Your task to perform on an android device: visit the assistant section in the google photos Image 0: 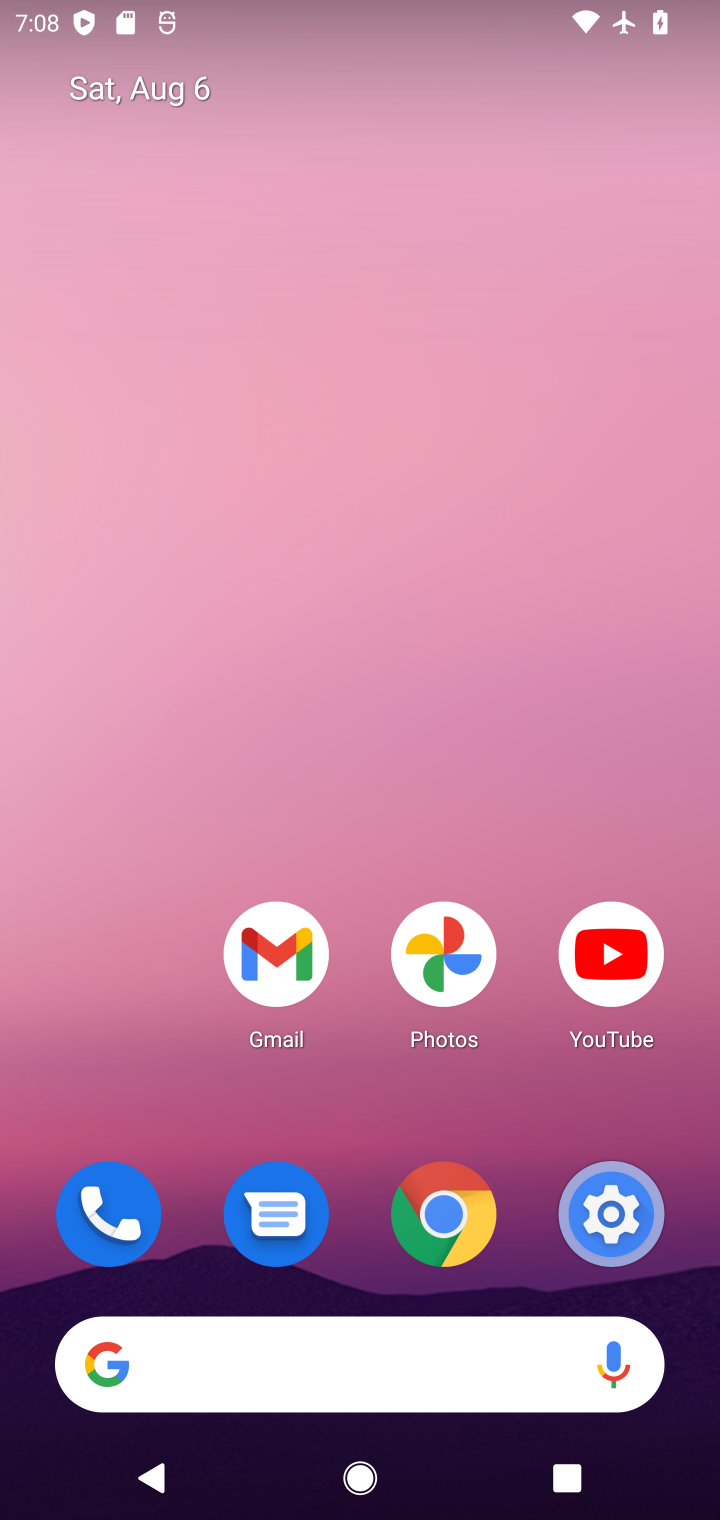
Step 0: click (467, 953)
Your task to perform on an android device: visit the assistant section in the google photos Image 1: 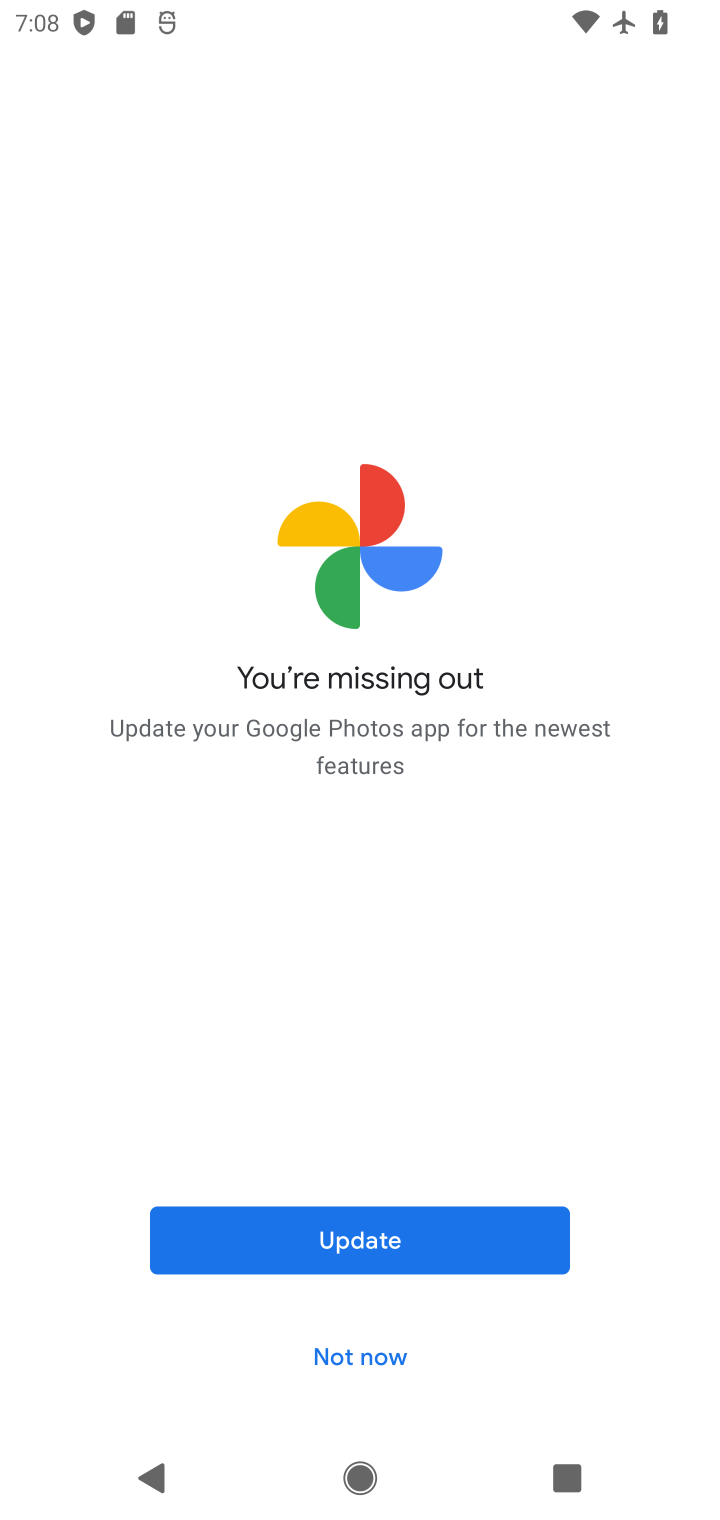
Step 1: click (341, 1351)
Your task to perform on an android device: visit the assistant section in the google photos Image 2: 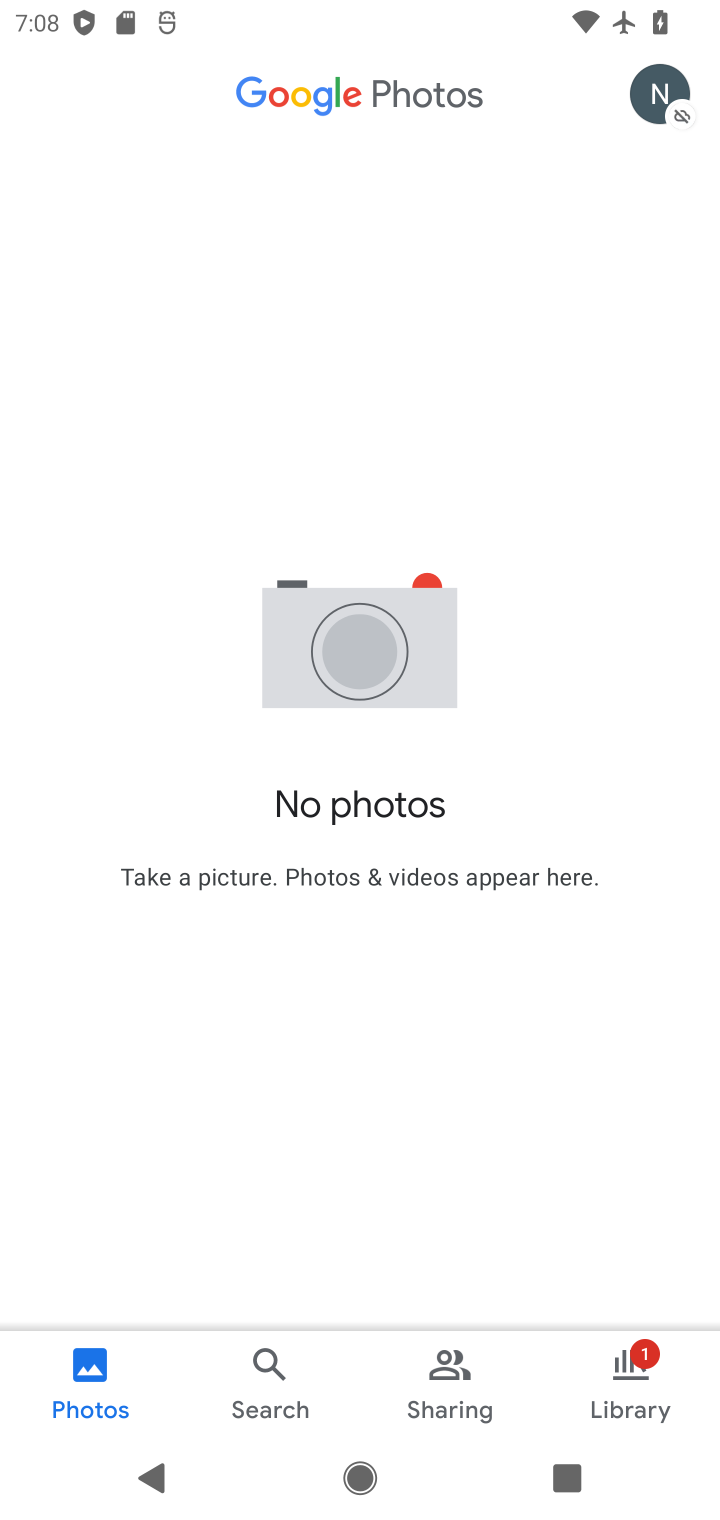
Step 2: click (636, 1394)
Your task to perform on an android device: visit the assistant section in the google photos Image 3: 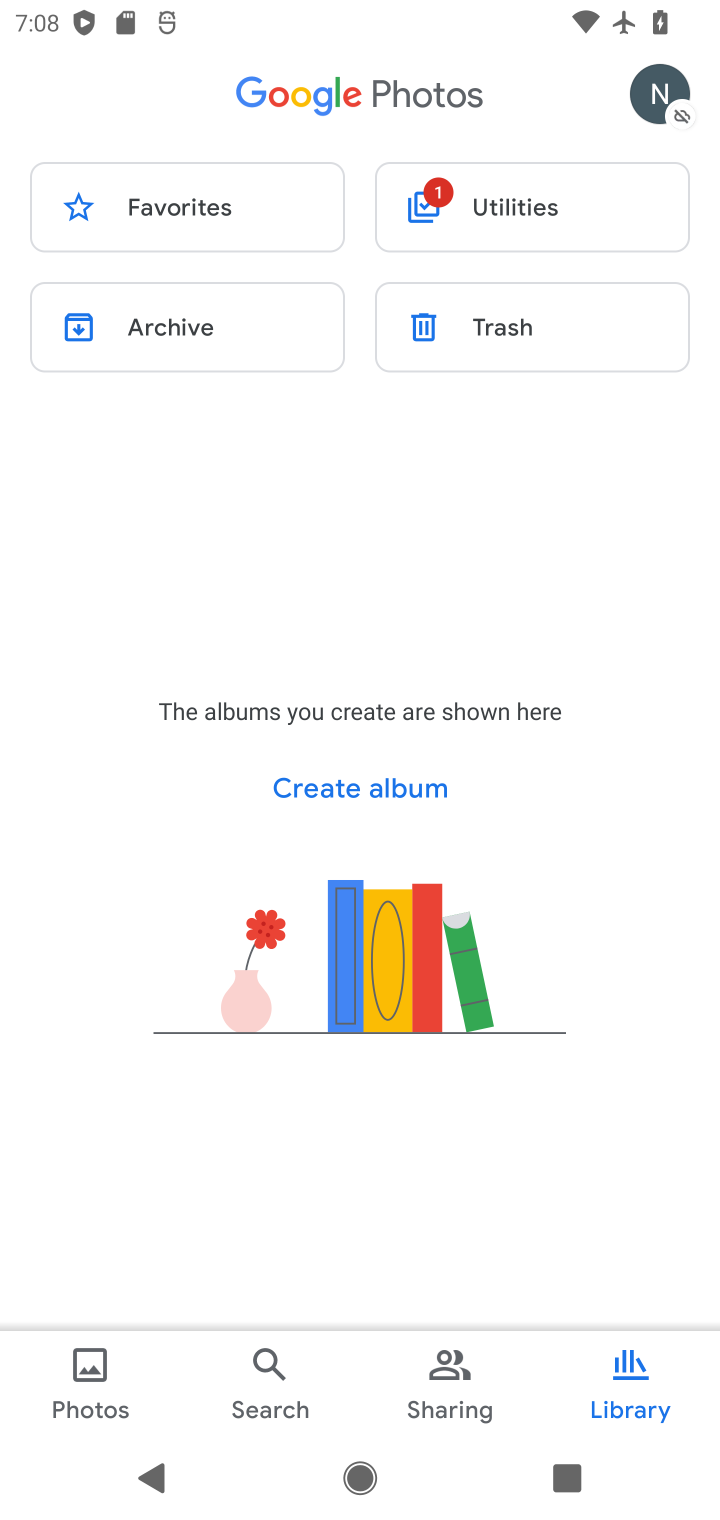
Step 3: click (467, 1377)
Your task to perform on an android device: visit the assistant section in the google photos Image 4: 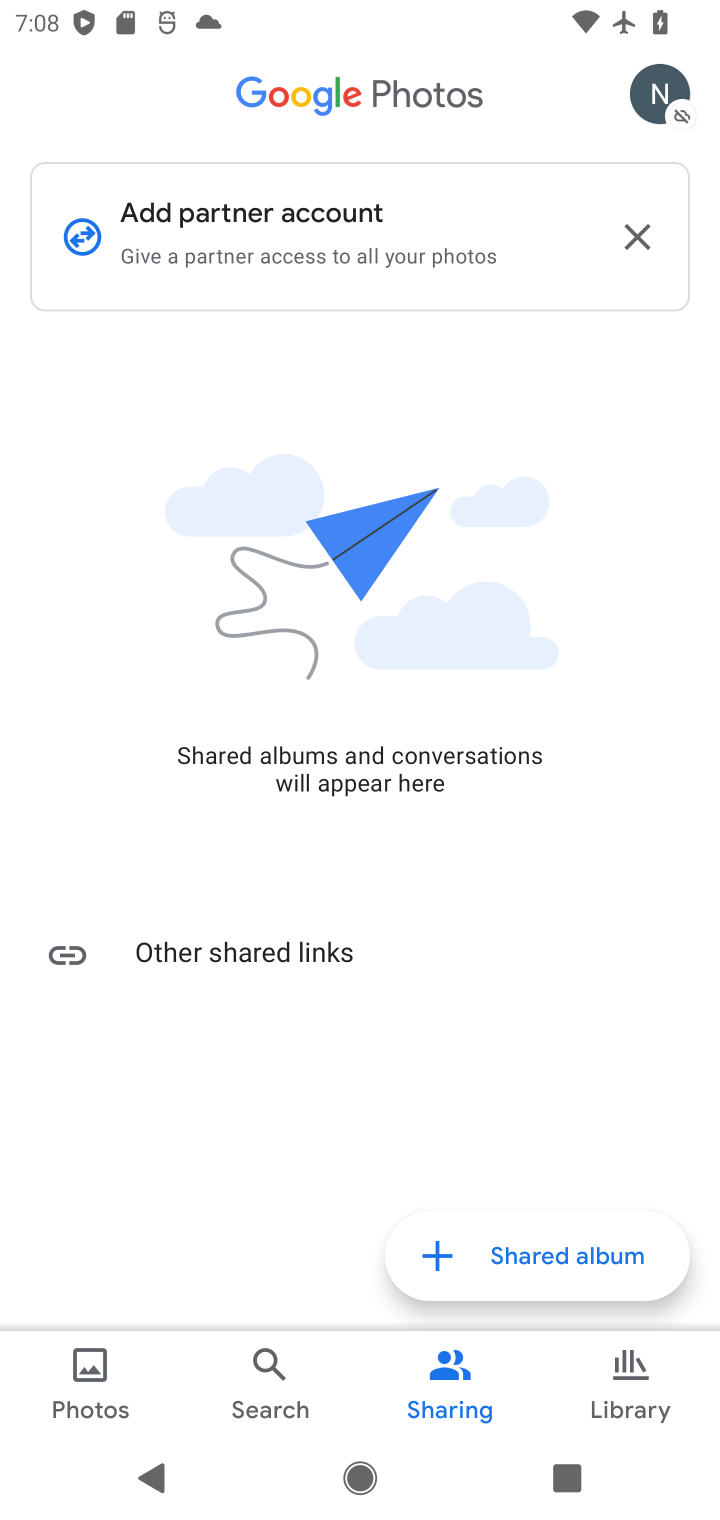
Step 4: click (246, 1402)
Your task to perform on an android device: visit the assistant section in the google photos Image 5: 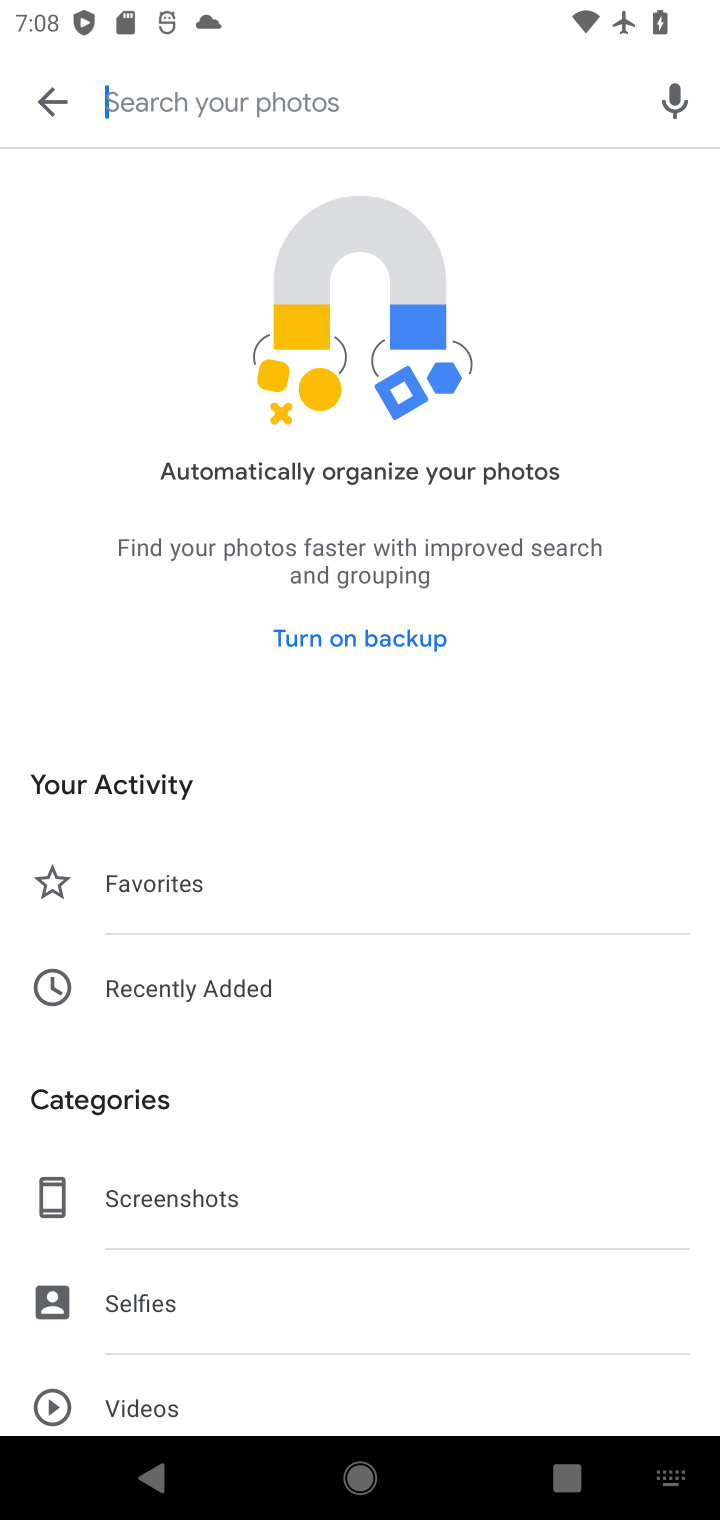
Step 5: task complete